Your task to perform on an android device: install app "Calculator" Image 0: 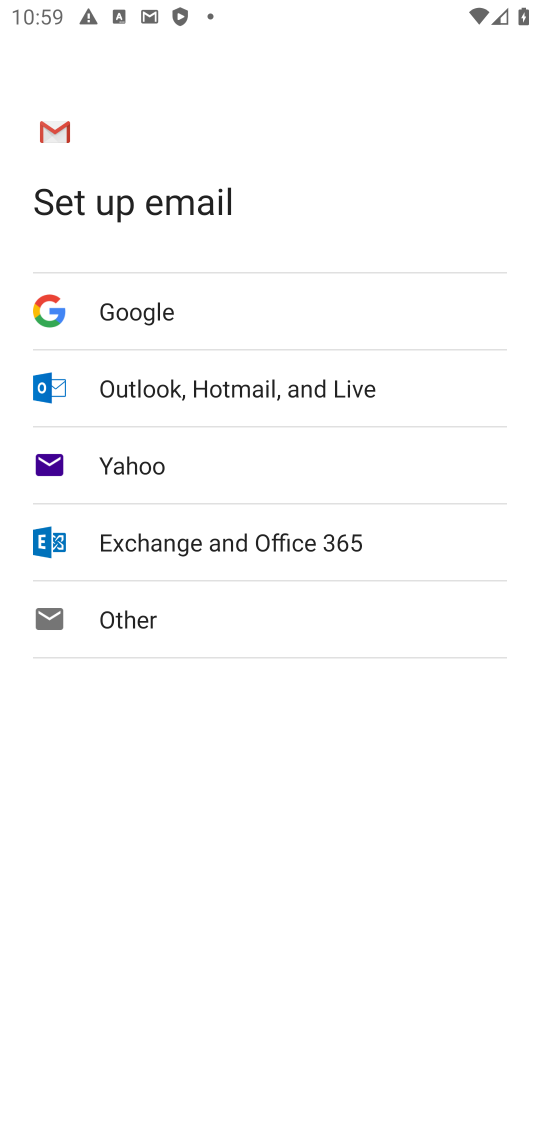
Step 0: press home button
Your task to perform on an android device: install app "Calculator" Image 1: 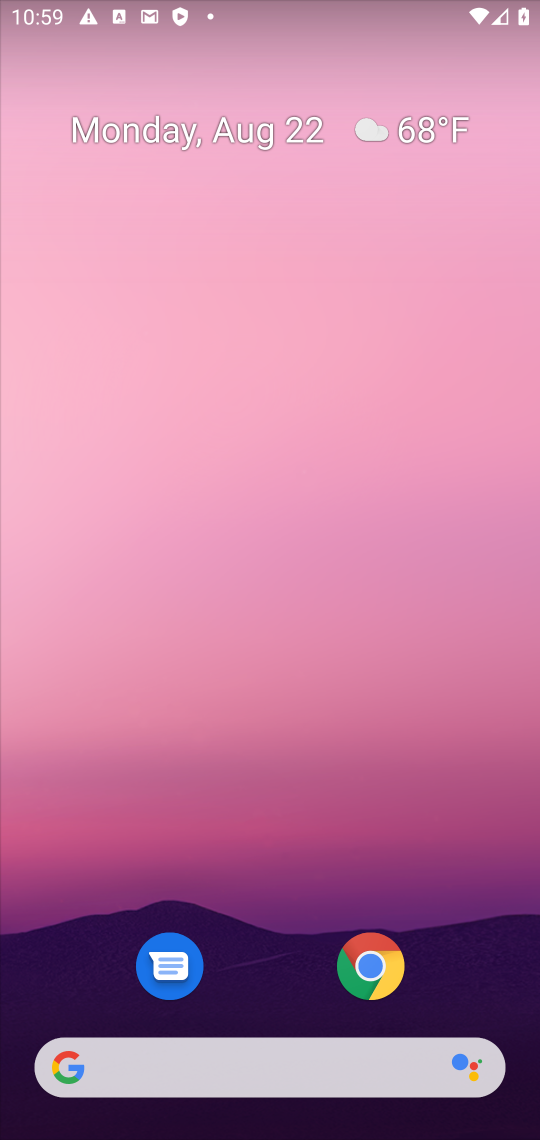
Step 1: drag from (466, 976) to (463, 97)
Your task to perform on an android device: install app "Calculator" Image 2: 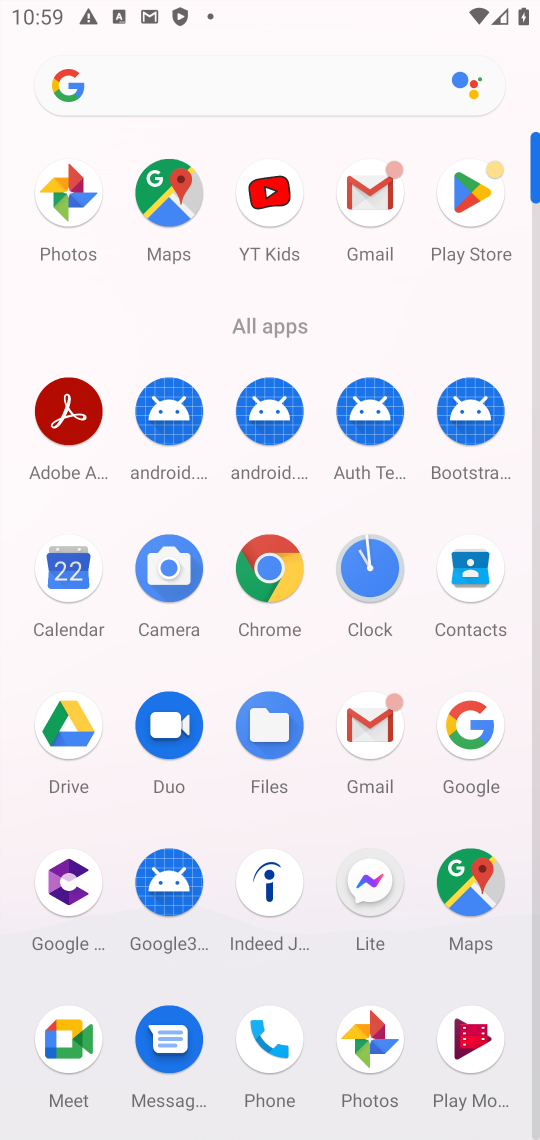
Step 2: click (477, 198)
Your task to perform on an android device: install app "Calculator" Image 3: 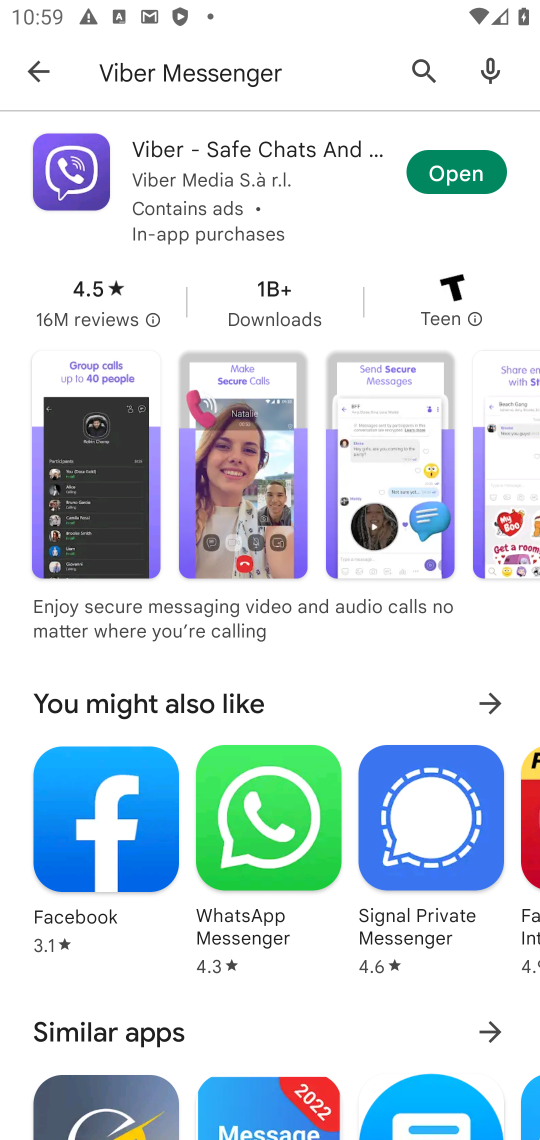
Step 3: press back button
Your task to perform on an android device: install app "Calculator" Image 4: 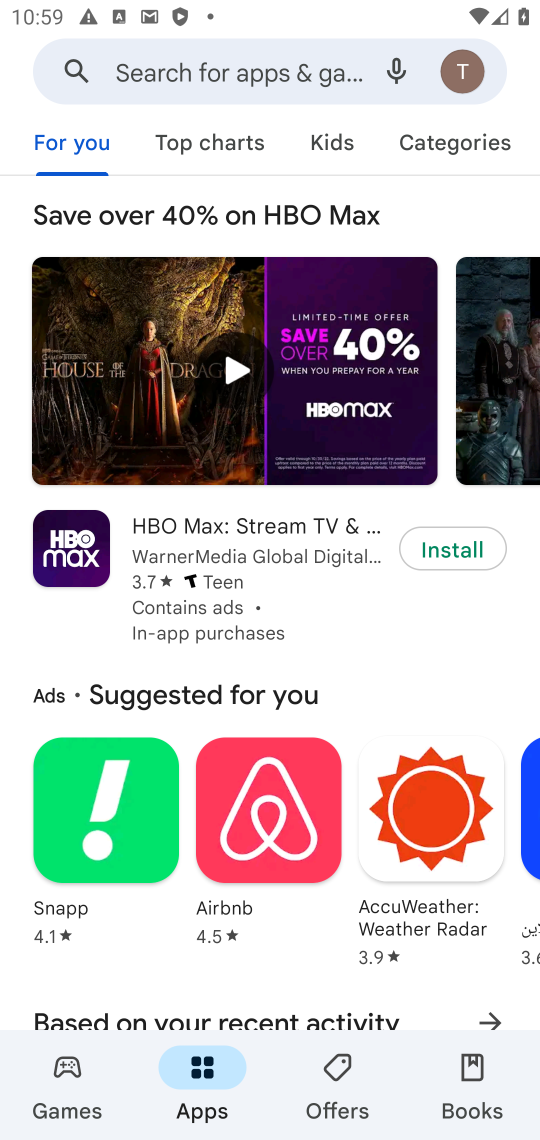
Step 4: click (209, 86)
Your task to perform on an android device: install app "Calculator" Image 5: 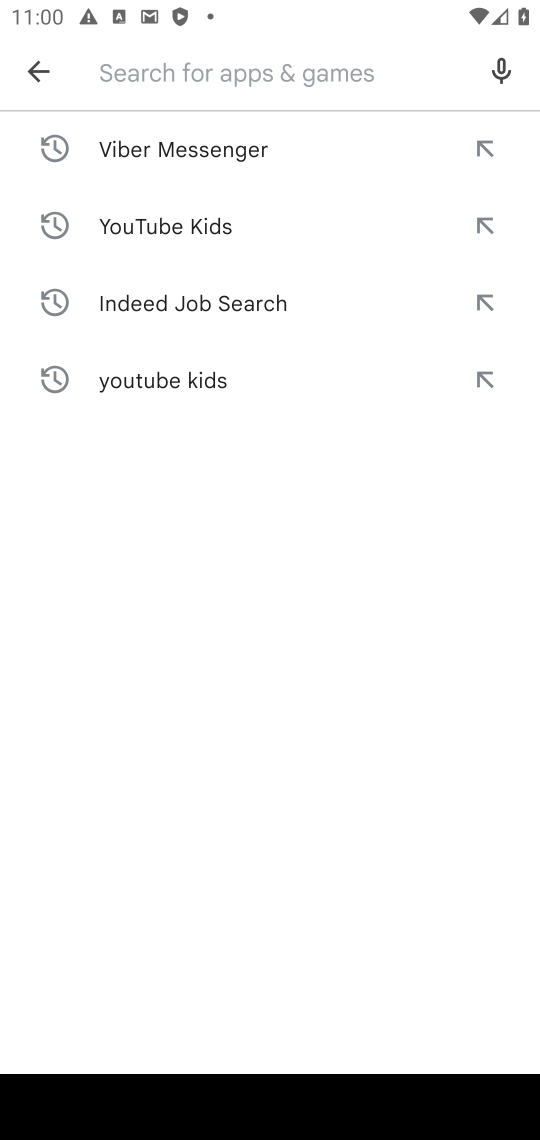
Step 5: type "Calculator"
Your task to perform on an android device: install app "Calculator" Image 6: 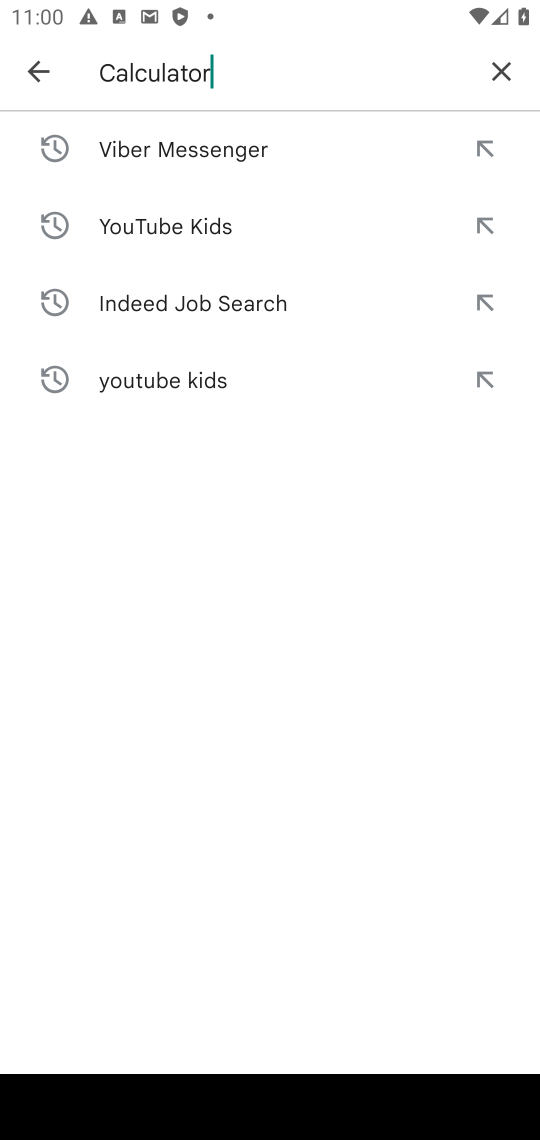
Step 6: press enter
Your task to perform on an android device: install app "Calculator" Image 7: 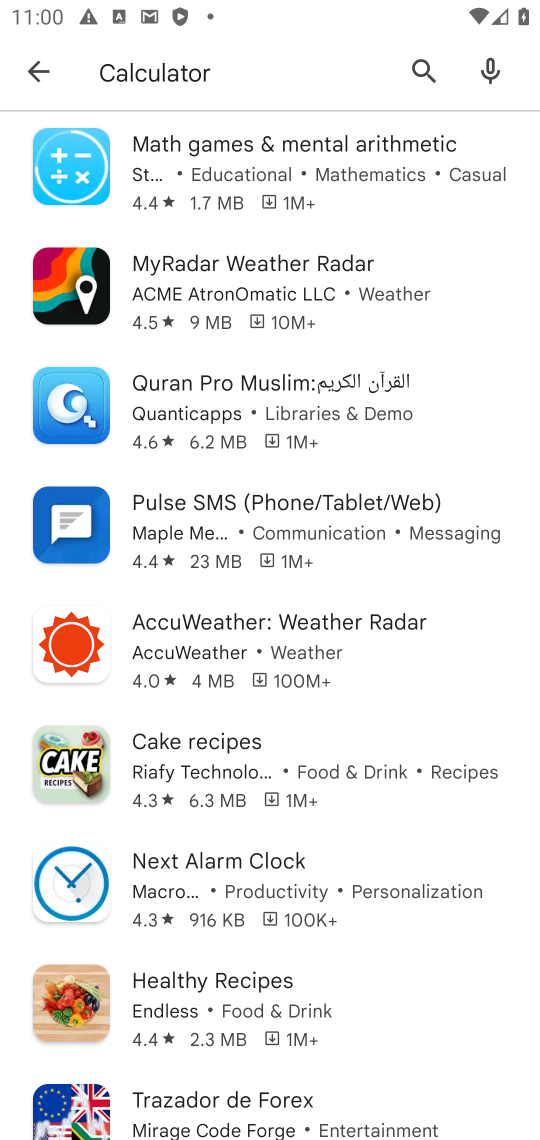
Step 7: task complete